Your task to perform on an android device: toggle priority inbox in the gmail app Image 0: 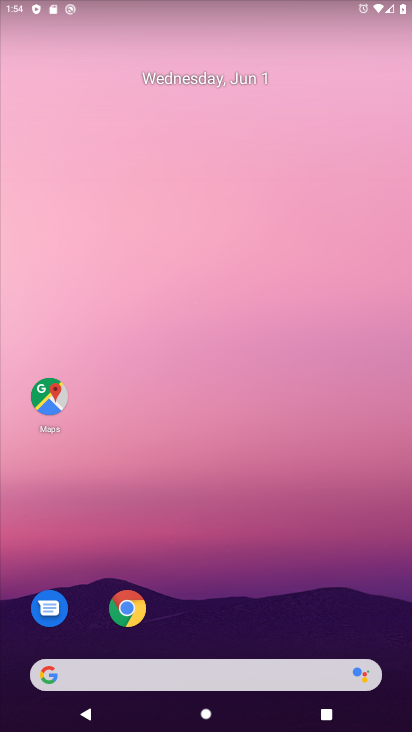
Step 0: drag from (210, 643) to (276, 152)
Your task to perform on an android device: toggle priority inbox in the gmail app Image 1: 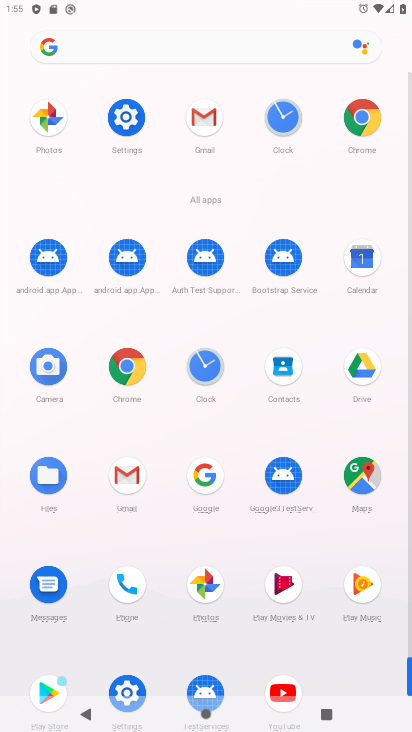
Step 1: click (128, 464)
Your task to perform on an android device: toggle priority inbox in the gmail app Image 2: 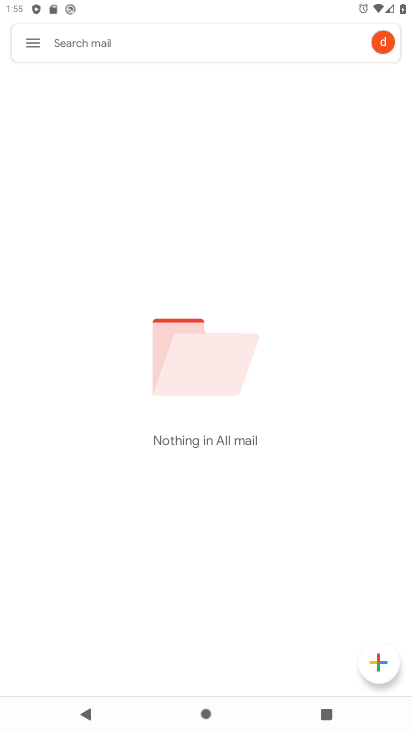
Step 2: click (39, 44)
Your task to perform on an android device: toggle priority inbox in the gmail app Image 3: 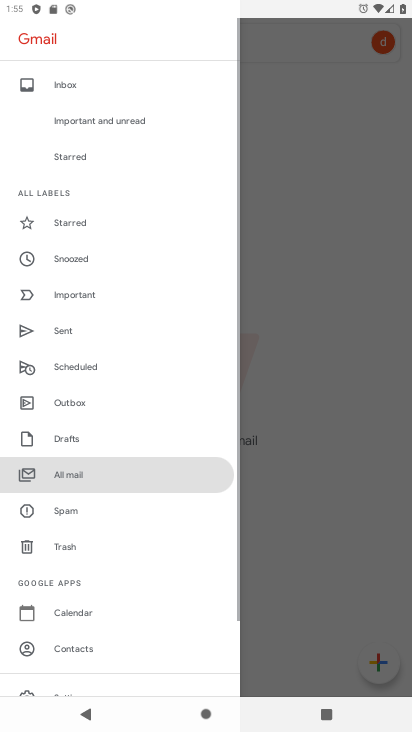
Step 3: drag from (124, 692) to (195, 298)
Your task to perform on an android device: toggle priority inbox in the gmail app Image 4: 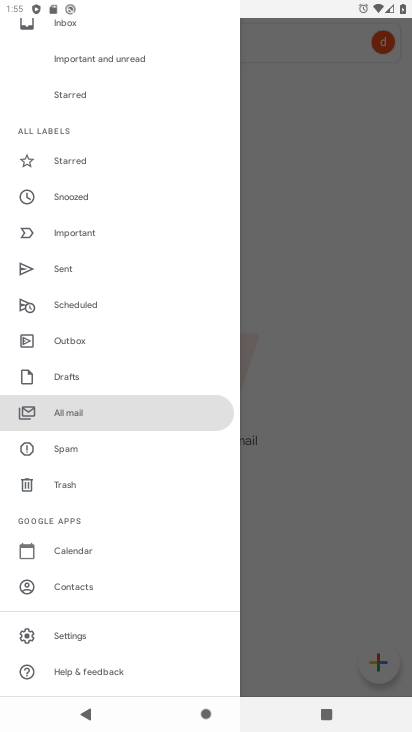
Step 4: click (104, 641)
Your task to perform on an android device: toggle priority inbox in the gmail app Image 5: 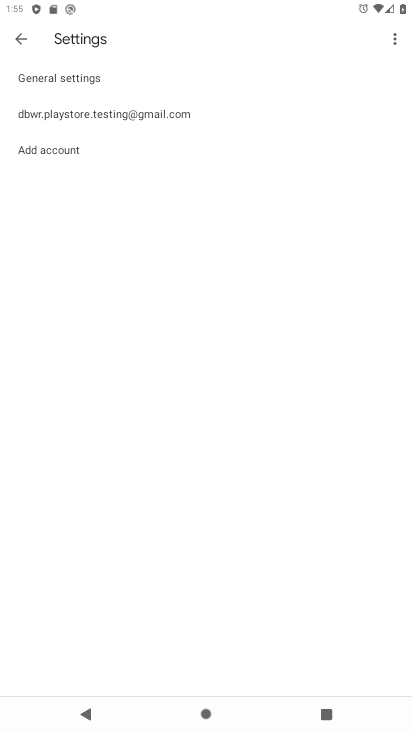
Step 5: click (236, 124)
Your task to perform on an android device: toggle priority inbox in the gmail app Image 6: 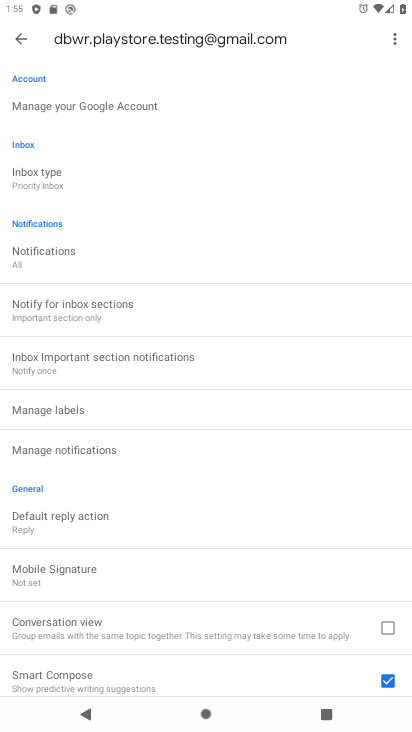
Step 6: click (167, 178)
Your task to perform on an android device: toggle priority inbox in the gmail app Image 7: 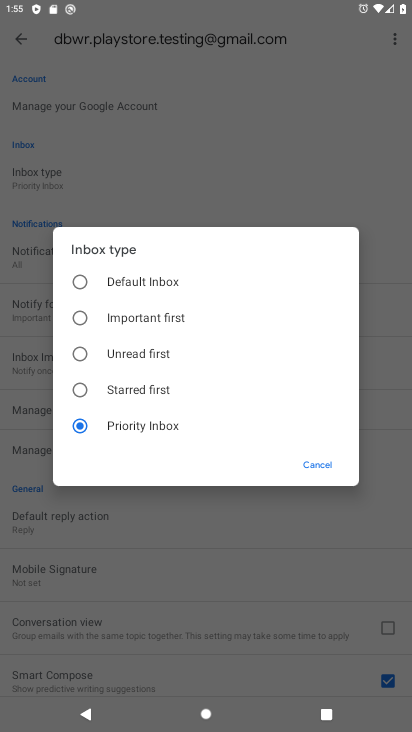
Step 7: click (158, 278)
Your task to perform on an android device: toggle priority inbox in the gmail app Image 8: 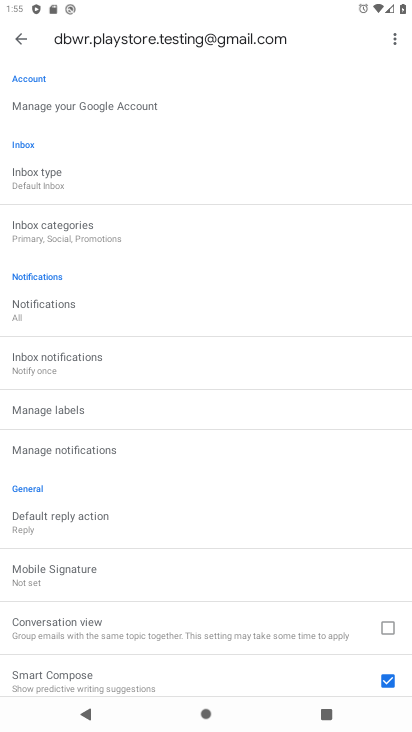
Step 8: task complete